Your task to perform on an android device: Open Youtube and go to "Your channel" Image 0: 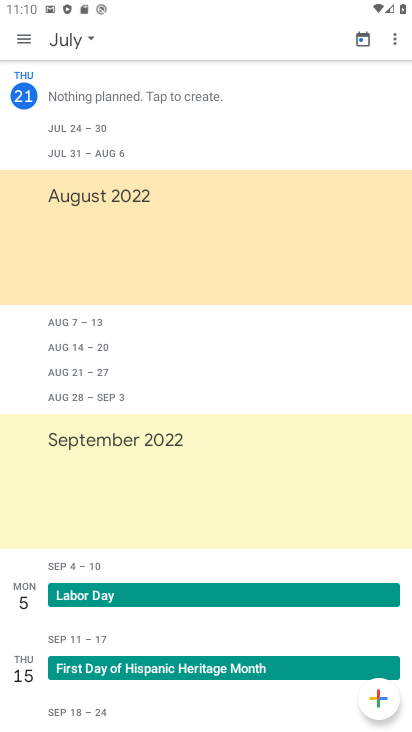
Step 0: click (317, 709)
Your task to perform on an android device: Open Youtube and go to "Your channel" Image 1: 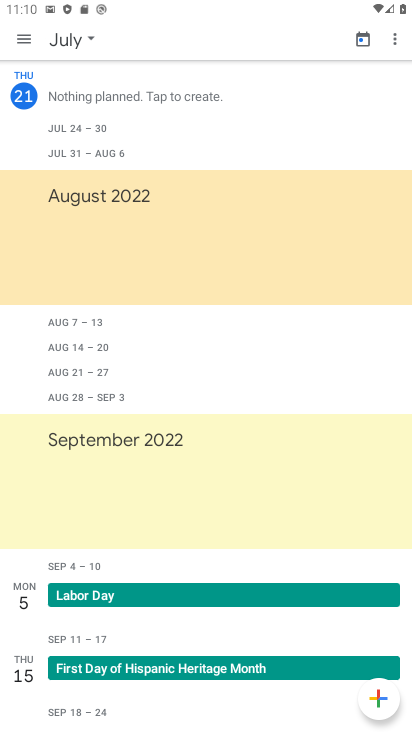
Step 1: drag from (248, 522) to (281, 87)
Your task to perform on an android device: Open Youtube and go to "Your channel" Image 2: 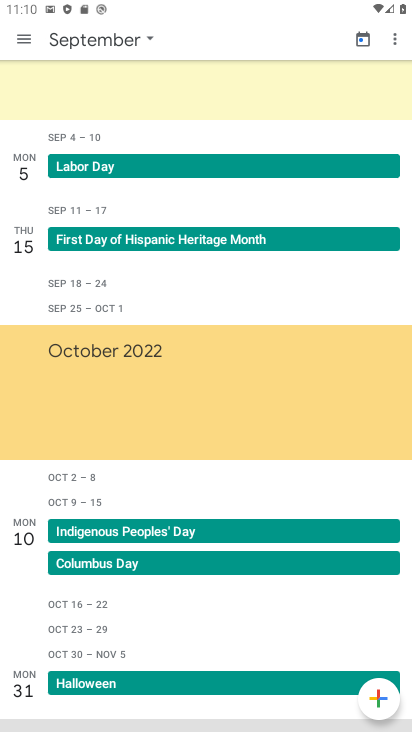
Step 2: drag from (173, 576) to (269, 215)
Your task to perform on an android device: Open Youtube and go to "Your channel" Image 3: 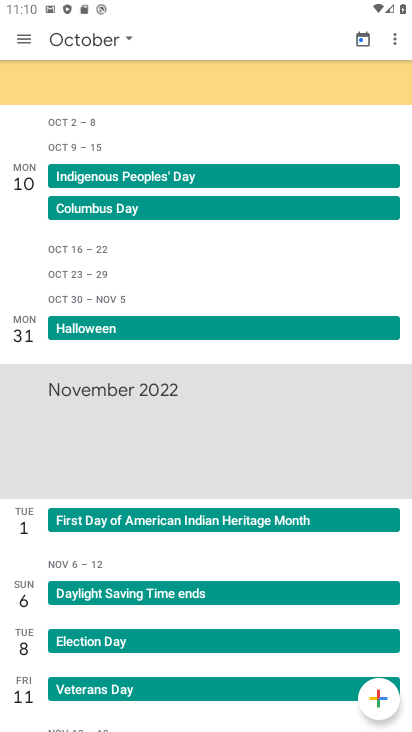
Step 3: press home button
Your task to perform on an android device: Open Youtube and go to "Your channel" Image 4: 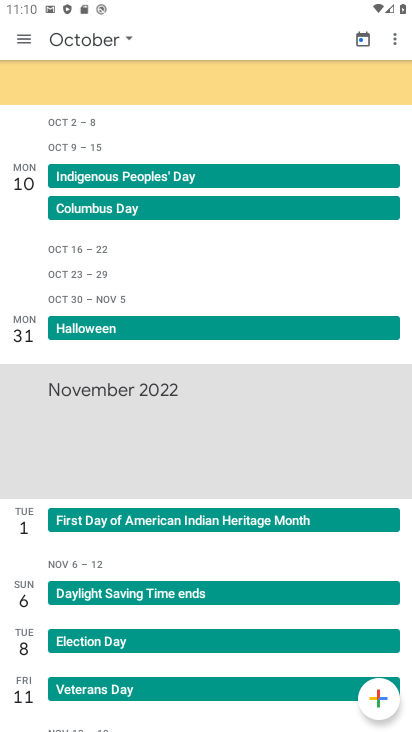
Step 4: drag from (146, 484) to (176, 197)
Your task to perform on an android device: Open Youtube and go to "Your channel" Image 5: 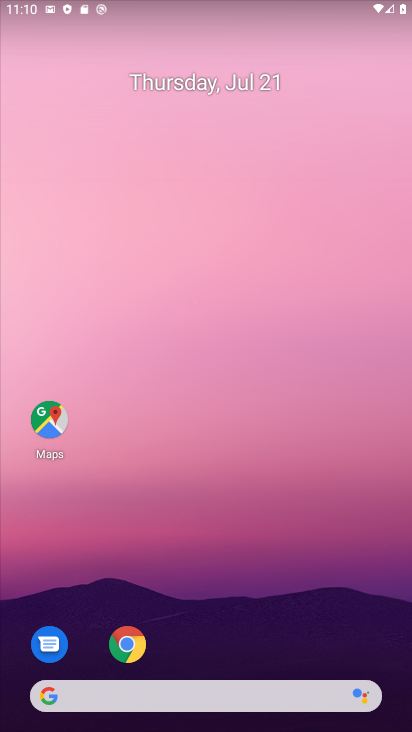
Step 5: drag from (189, 652) to (211, 179)
Your task to perform on an android device: Open Youtube and go to "Your channel" Image 6: 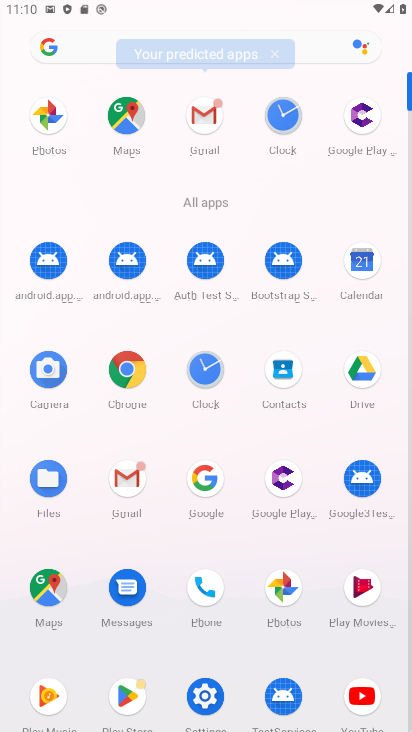
Step 6: drag from (289, 211) to (324, 101)
Your task to perform on an android device: Open Youtube and go to "Your channel" Image 7: 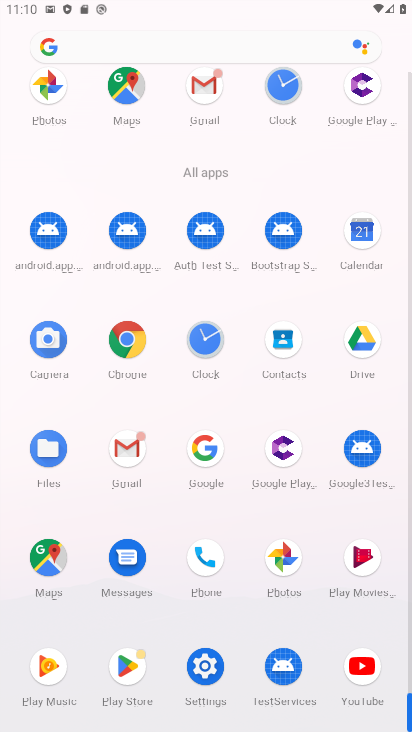
Step 7: click (368, 675)
Your task to perform on an android device: Open Youtube and go to "Your channel" Image 8: 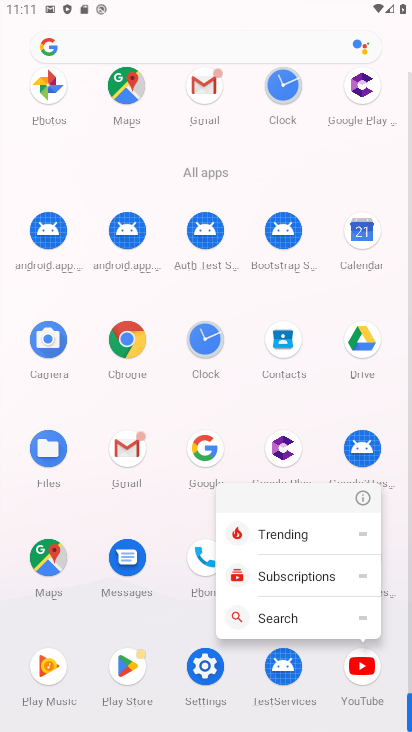
Step 8: click (360, 490)
Your task to perform on an android device: Open Youtube and go to "Your channel" Image 9: 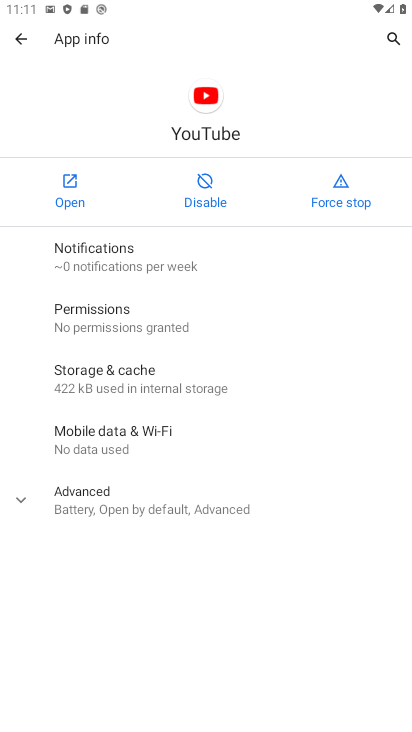
Step 9: click (63, 182)
Your task to perform on an android device: Open Youtube and go to "Your channel" Image 10: 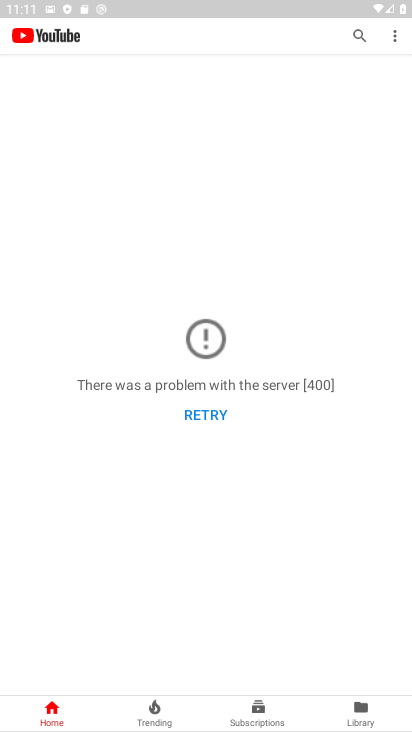
Step 10: drag from (163, 345) to (147, 4)
Your task to perform on an android device: Open Youtube and go to "Your channel" Image 11: 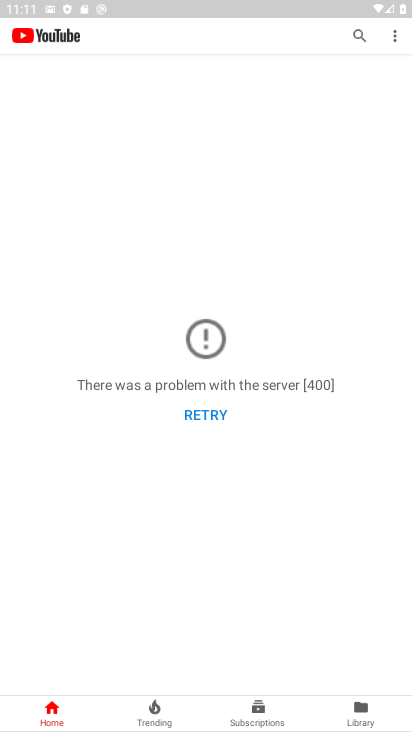
Step 11: click (213, 418)
Your task to perform on an android device: Open Youtube and go to "Your channel" Image 12: 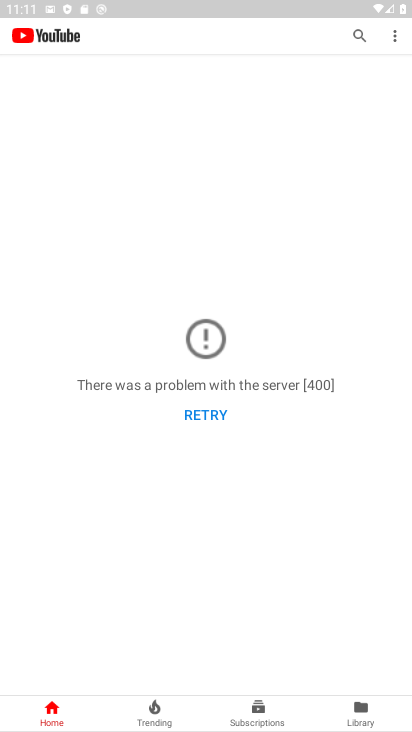
Step 12: task complete